Your task to perform on an android device: turn off javascript in the chrome app Image 0: 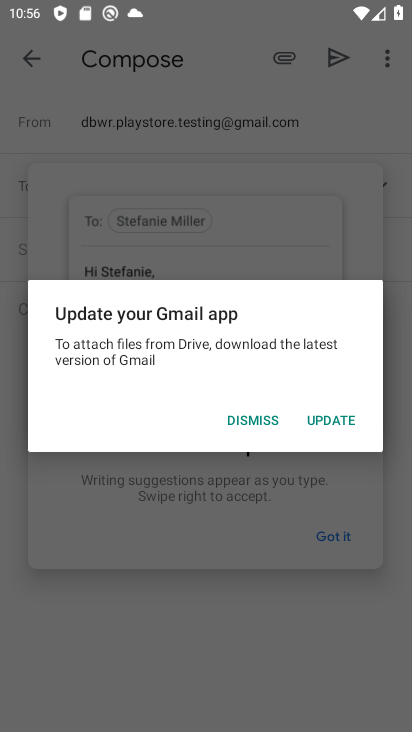
Step 0: click (261, 423)
Your task to perform on an android device: turn off javascript in the chrome app Image 1: 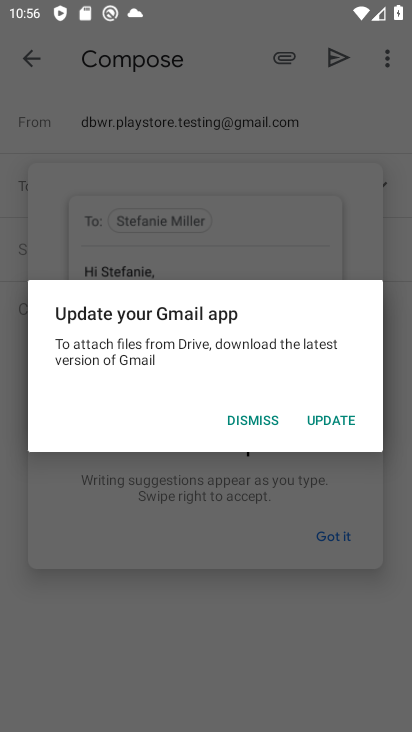
Step 1: click (260, 422)
Your task to perform on an android device: turn off javascript in the chrome app Image 2: 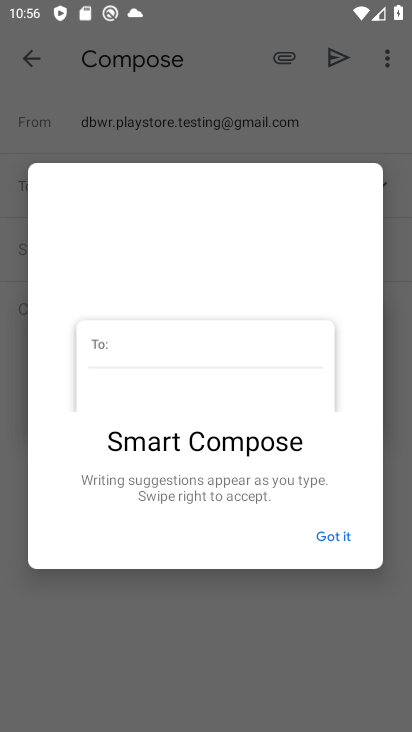
Step 2: click (341, 528)
Your task to perform on an android device: turn off javascript in the chrome app Image 3: 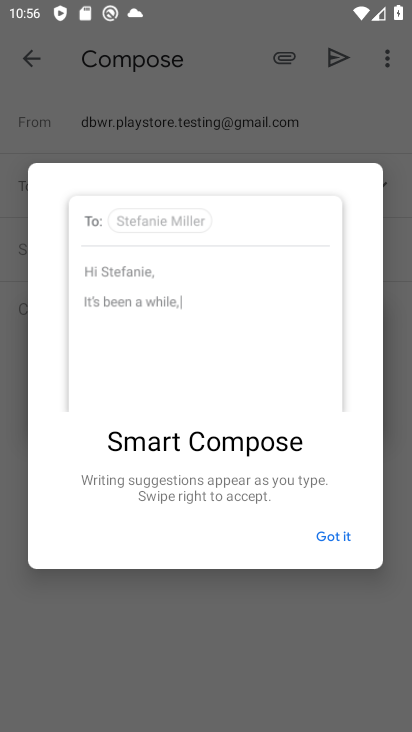
Step 3: click (341, 528)
Your task to perform on an android device: turn off javascript in the chrome app Image 4: 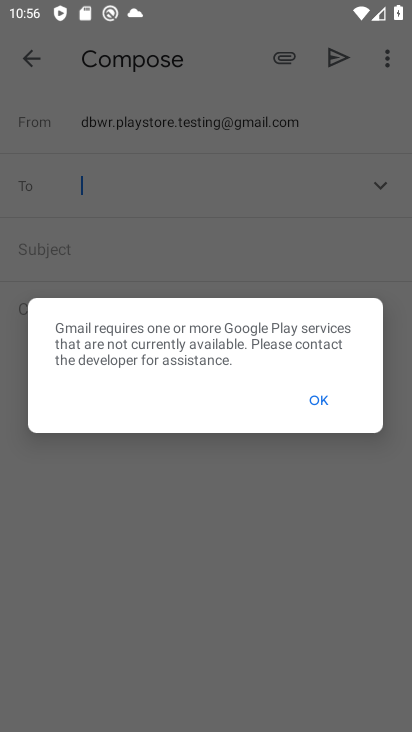
Step 4: click (341, 540)
Your task to perform on an android device: turn off javascript in the chrome app Image 5: 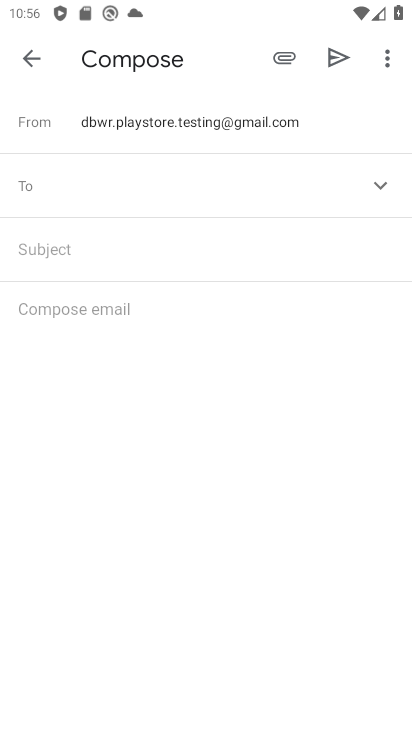
Step 5: press back button
Your task to perform on an android device: turn off javascript in the chrome app Image 6: 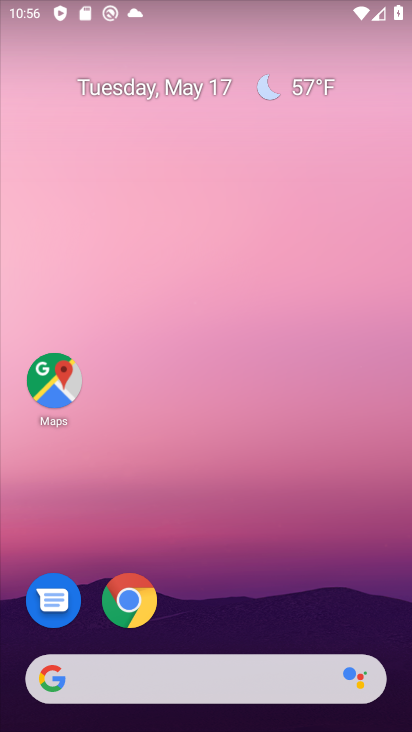
Step 6: drag from (226, 706) to (190, 105)
Your task to perform on an android device: turn off javascript in the chrome app Image 7: 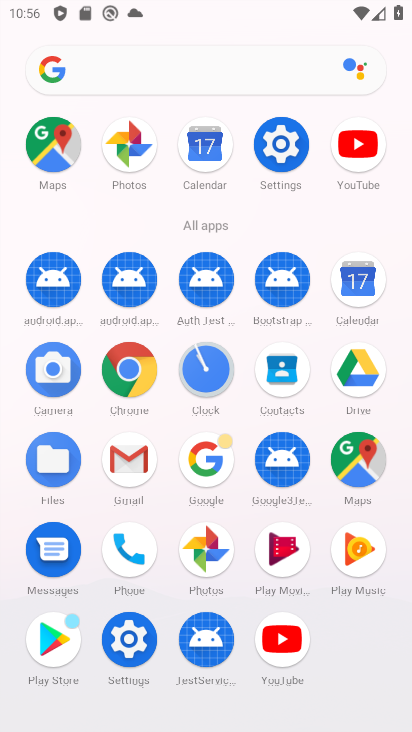
Step 7: click (135, 357)
Your task to perform on an android device: turn off javascript in the chrome app Image 8: 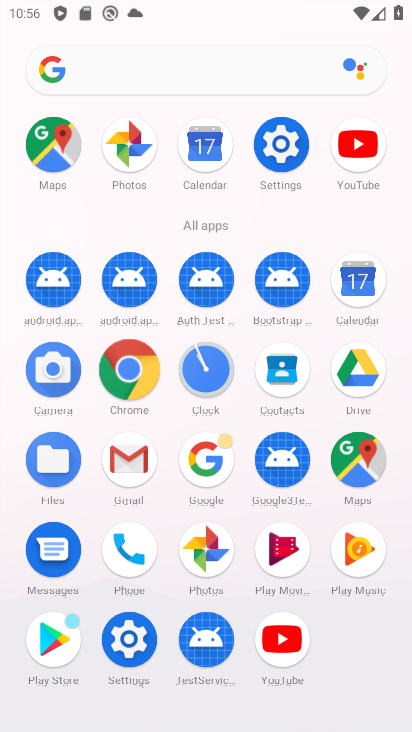
Step 8: click (134, 358)
Your task to perform on an android device: turn off javascript in the chrome app Image 9: 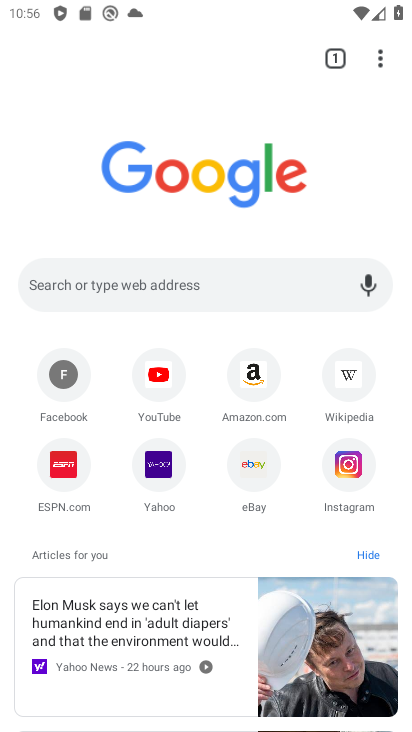
Step 9: drag from (379, 62) to (149, 484)
Your task to perform on an android device: turn off javascript in the chrome app Image 10: 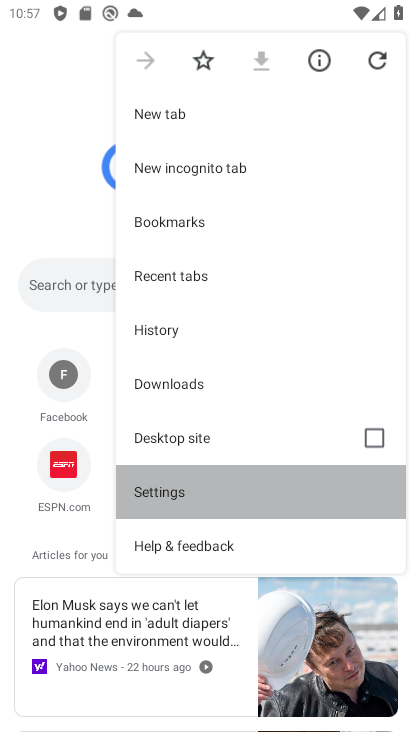
Step 10: click (154, 487)
Your task to perform on an android device: turn off javascript in the chrome app Image 11: 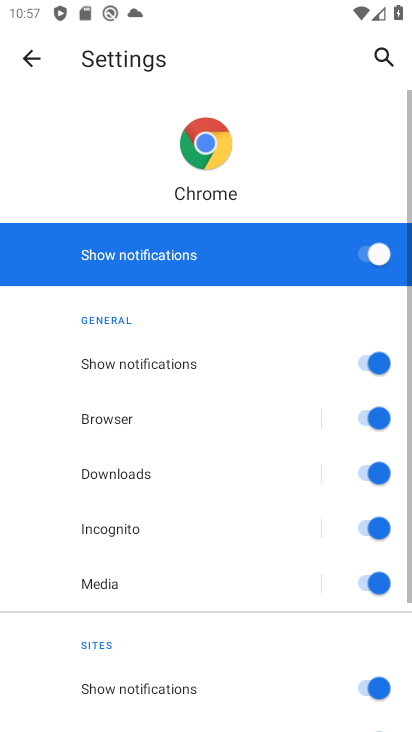
Step 11: click (24, 59)
Your task to perform on an android device: turn off javascript in the chrome app Image 12: 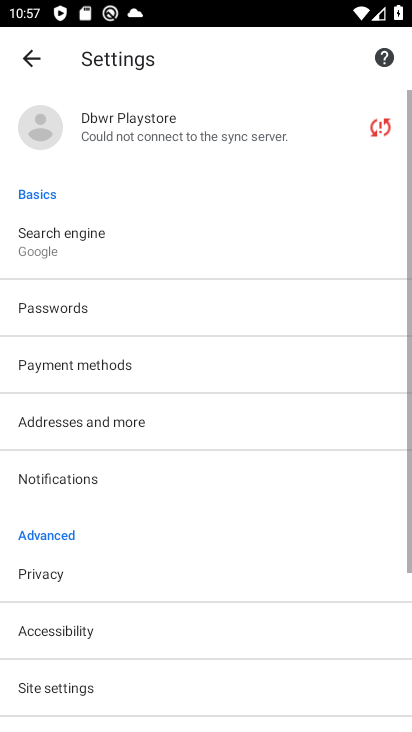
Step 12: drag from (135, 512) to (69, 52)
Your task to perform on an android device: turn off javascript in the chrome app Image 13: 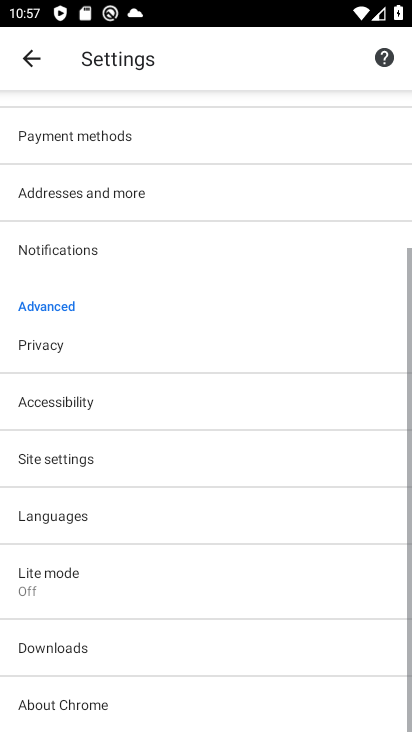
Step 13: drag from (98, 474) to (76, 31)
Your task to perform on an android device: turn off javascript in the chrome app Image 14: 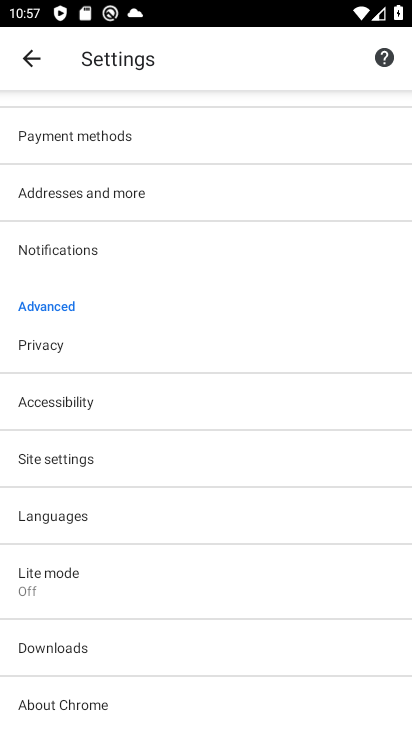
Step 14: click (64, 453)
Your task to perform on an android device: turn off javascript in the chrome app Image 15: 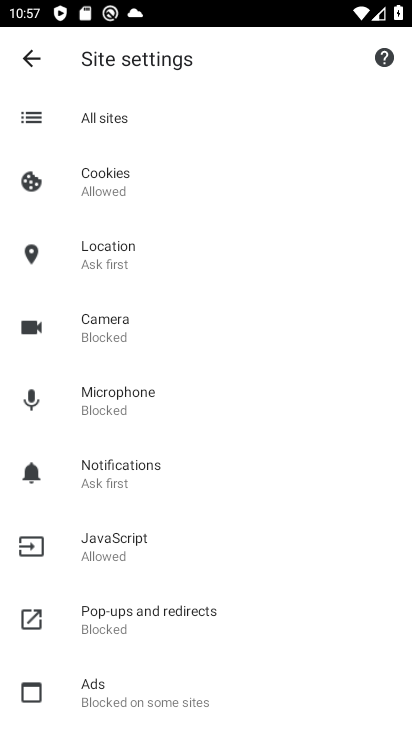
Step 15: click (101, 541)
Your task to perform on an android device: turn off javascript in the chrome app Image 16: 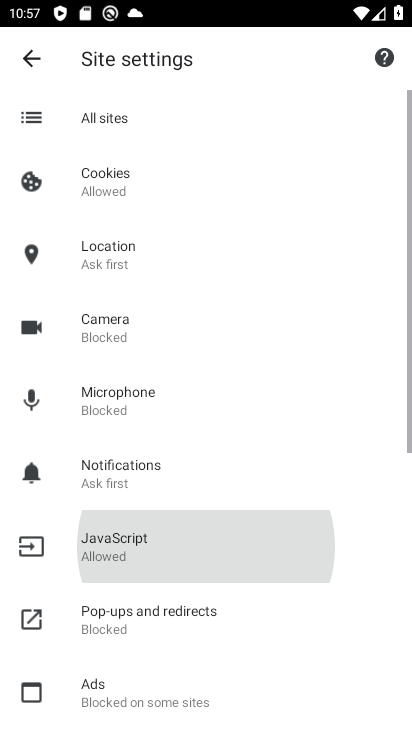
Step 16: click (101, 540)
Your task to perform on an android device: turn off javascript in the chrome app Image 17: 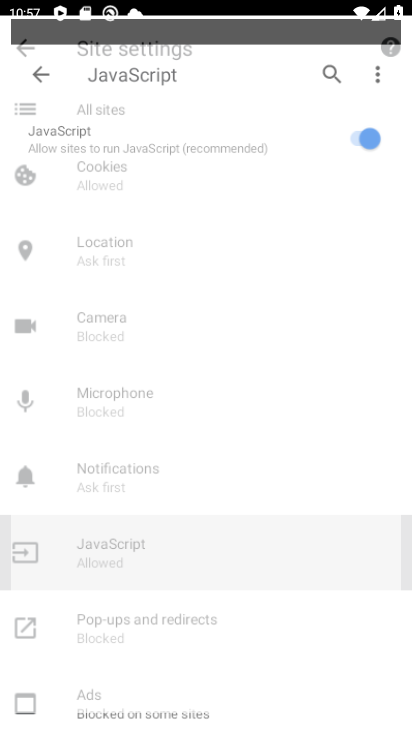
Step 17: click (103, 538)
Your task to perform on an android device: turn off javascript in the chrome app Image 18: 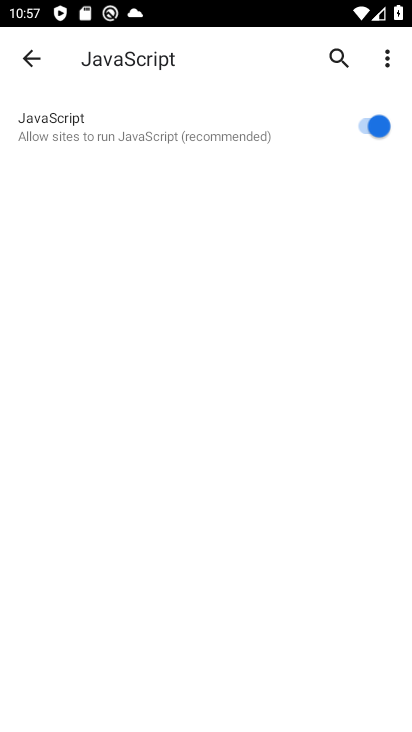
Step 18: click (389, 123)
Your task to perform on an android device: turn off javascript in the chrome app Image 19: 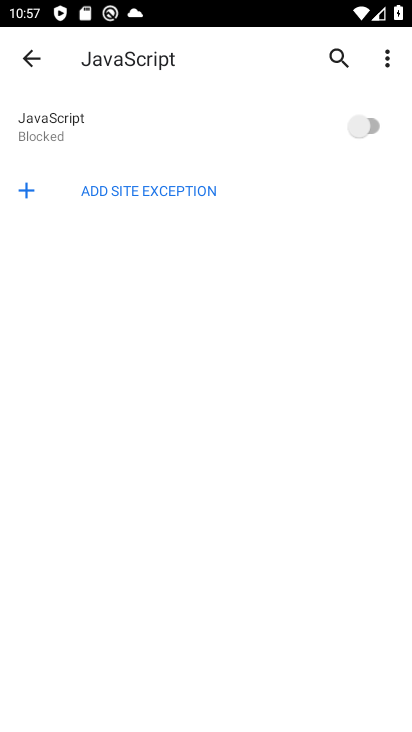
Step 19: task complete